Your task to perform on an android device: turn off sleep mode Image 0: 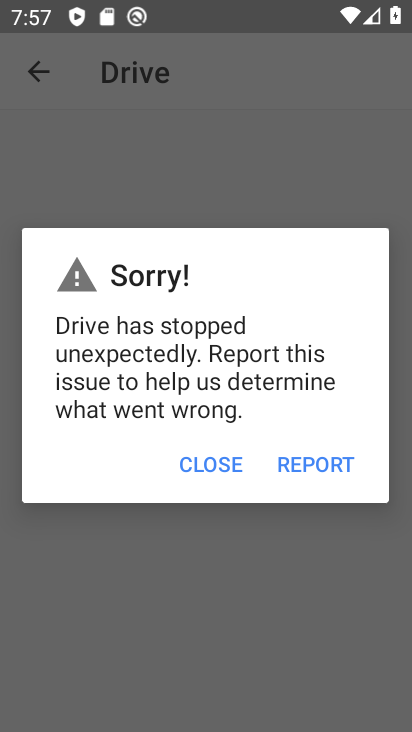
Step 0: press home button
Your task to perform on an android device: turn off sleep mode Image 1: 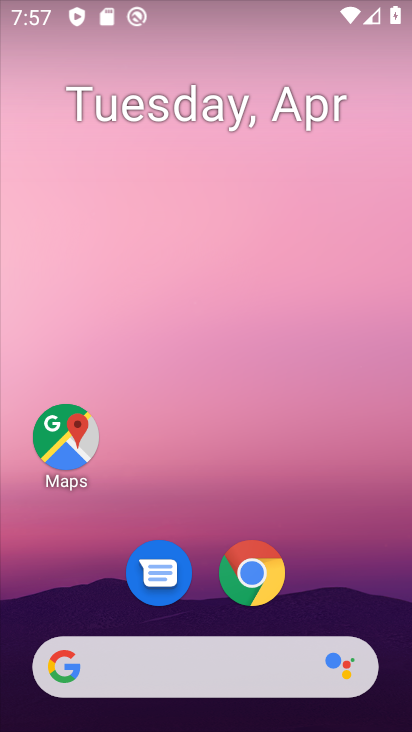
Step 1: drag from (197, 13) to (161, 639)
Your task to perform on an android device: turn off sleep mode Image 2: 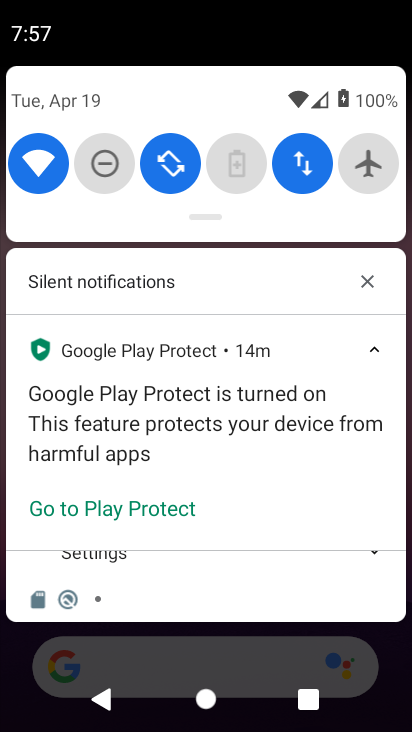
Step 2: drag from (171, 111) to (216, 718)
Your task to perform on an android device: turn off sleep mode Image 3: 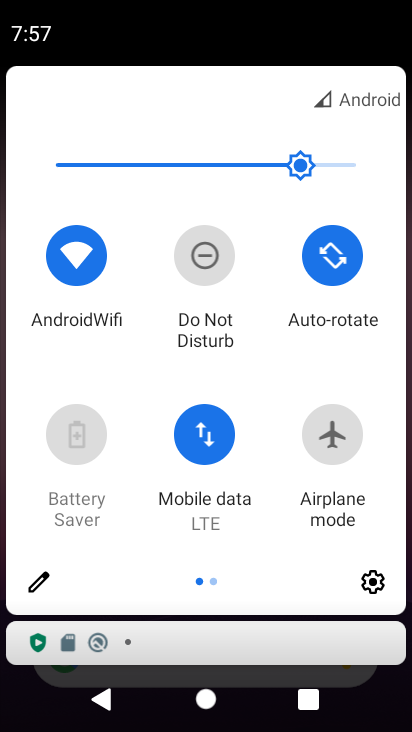
Step 3: click (377, 586)
Your task to perform on an android device: turn off sleep mode Image 4: 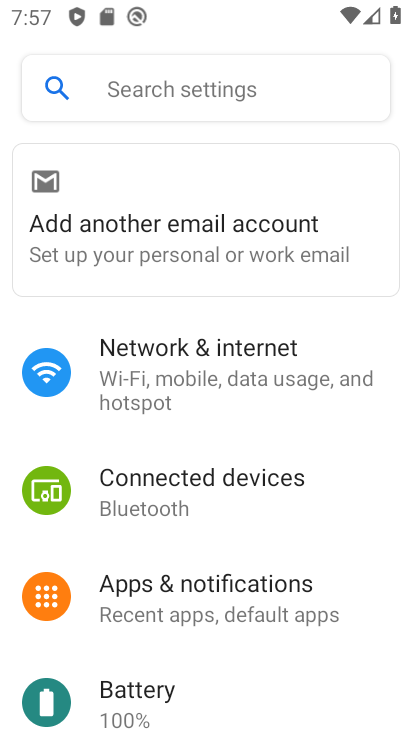
Step 4: click (377, 586)
Your task to perform on an android device: turn off sleep mode Image 5: 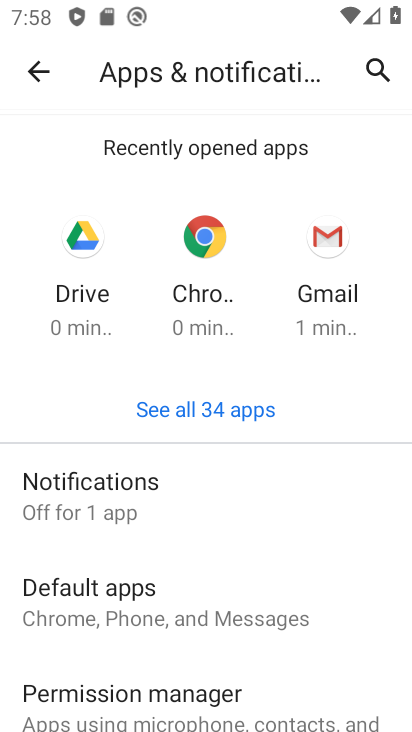
Step 5: task complete